Your task to perform on an android device: open app "Microsoft Authenticator" (install if not already installed) and enter user name: "Cornell@yahoo.com" and password: "bothersome" Image 0: 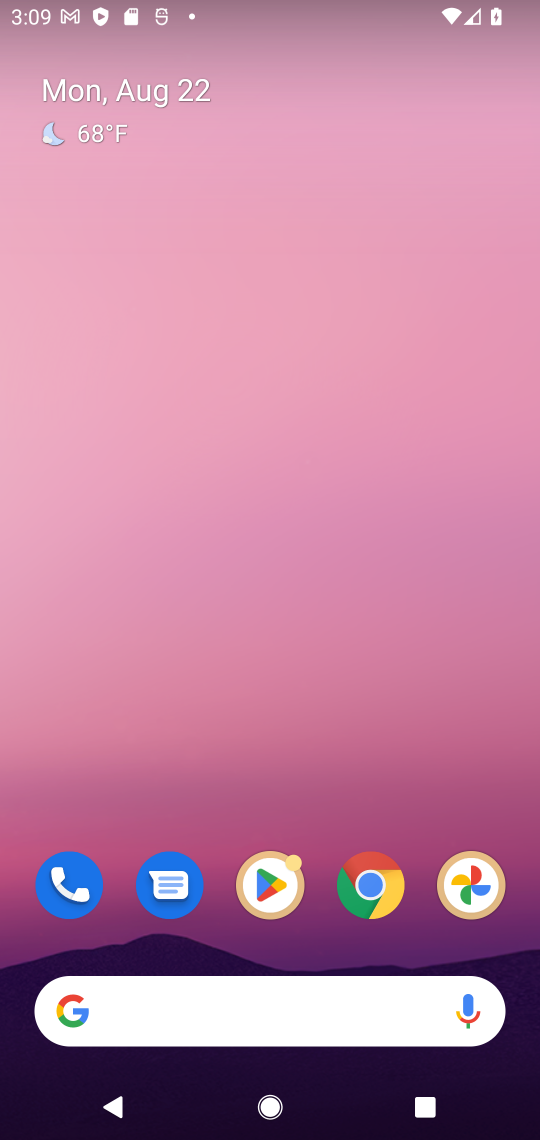
Step 0: press home button
Your task to perform on an android device: open app "Microsoft Authenticator" (install if not already installed) and enter user name: "Cornell@yahoo.com" and password: "bothersome" Image 1: 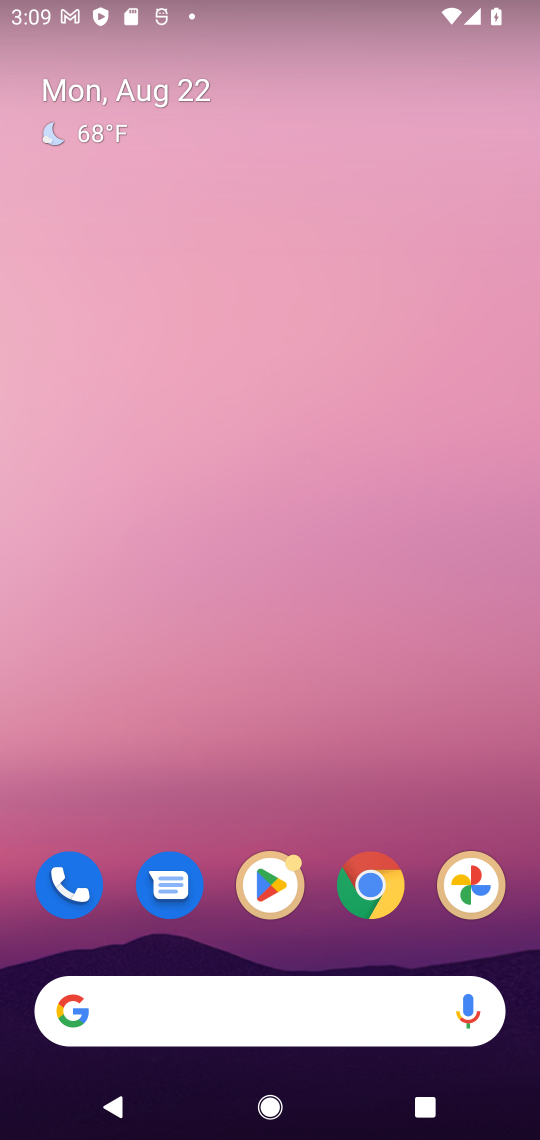
Step 1: click (257, 876)
Your task to perform on an android device: open app "Microsoft Authenticator" (install if not already installed) and enter user name: "Cornell@yahoo.com" and password: "bothersome" Image 2: 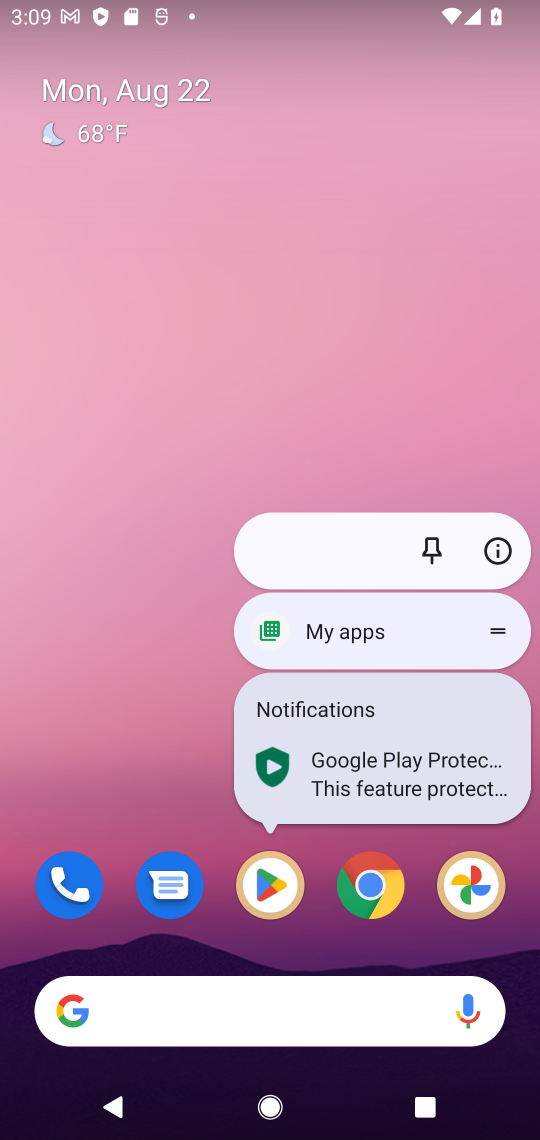
Step 2: click (264, 874)
Your task to perform on an android device: open app "Microsoft Authenticator" (install if not already installed) and enter user name: "Cornell@yahoo.com" and password: "bothersome" Image 3: 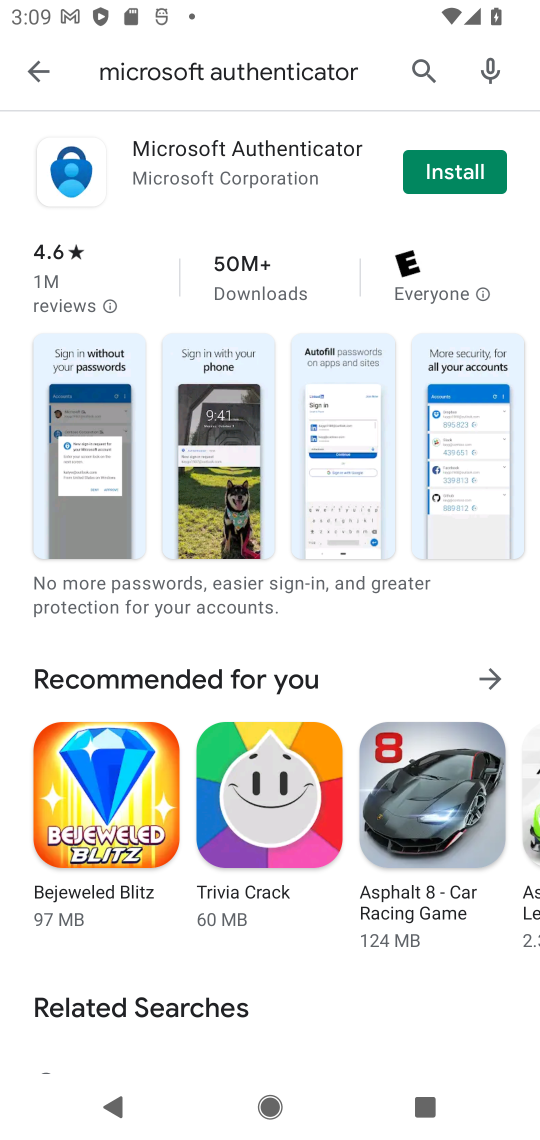
Step 3: click (419, 77)
Your task to perform on an android device: open app "Microsoft Authenticator" (install if not already installed) and enter user name: "Cornell@yahoo.com" and password: "bothersome" Image 4: 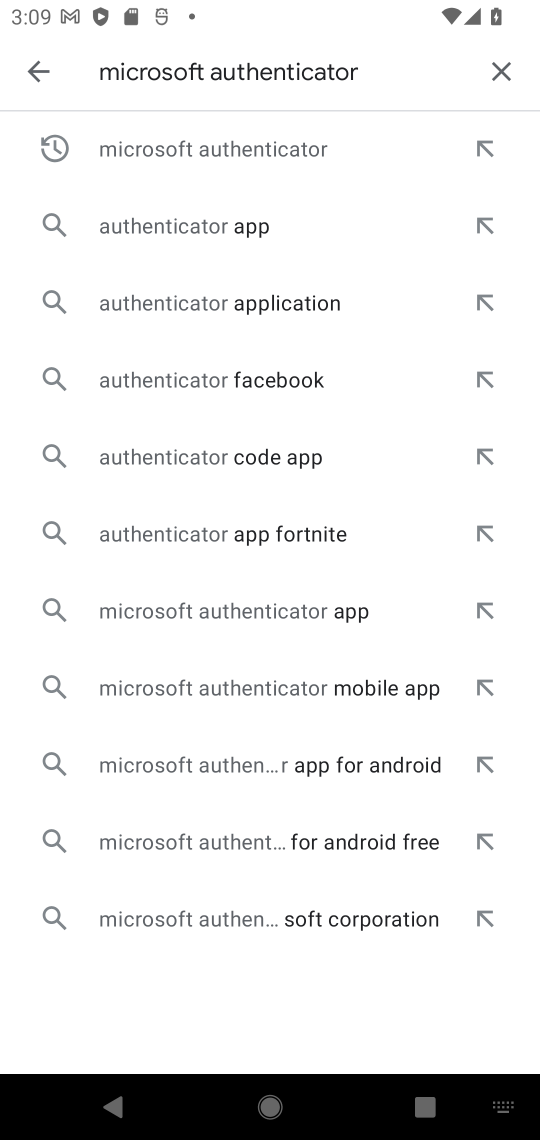
Step 4: click (499, 73)
Your task to perform on an android device: open app "Microsoft Authenticator" (install if not already installed) and enter user name: "Cornell@yahoo.com" and password: "bothersome" Image 5: 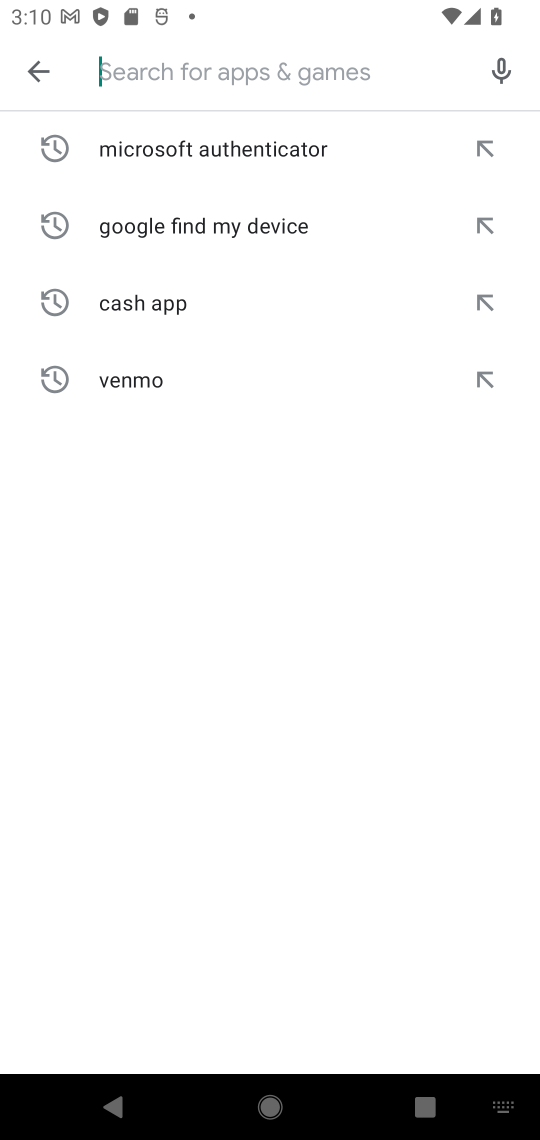
Step 5: type "Microsoft Authenticator"
Your task to perform on an android device: open app "Microsoft Authenticator" (install if not already installed) and enter user name: "Cornell@yahoo.com" and password: "bothersome" Image 6: 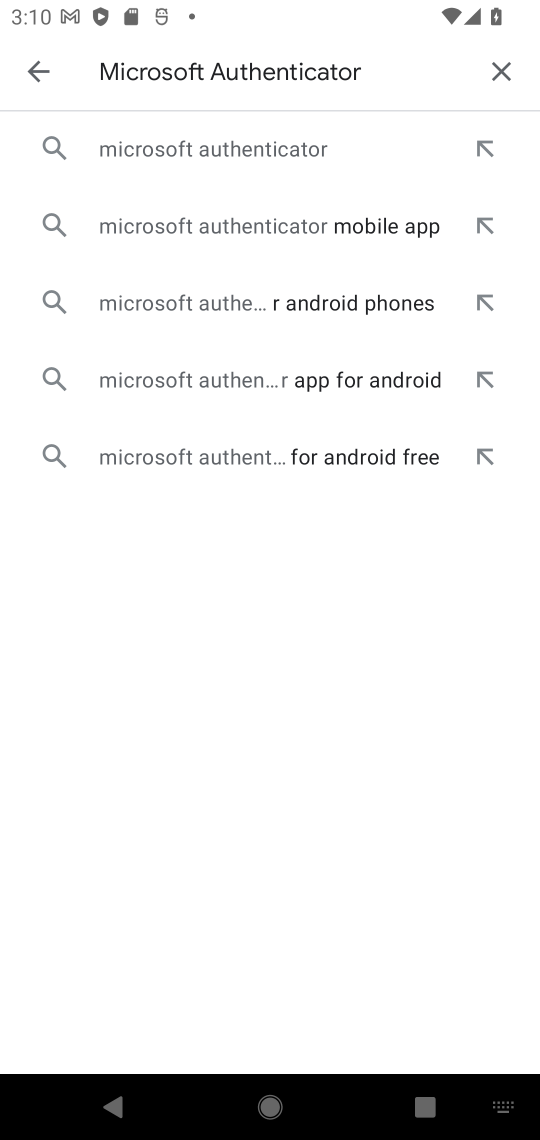
Step 6: click (291, 151)
Your task to perform on an android device: open app "Microsoft Authenticator" (install if not already installed) and enter user name: "Cornell@yahoo.com" and password: "bothersome" Image 7: 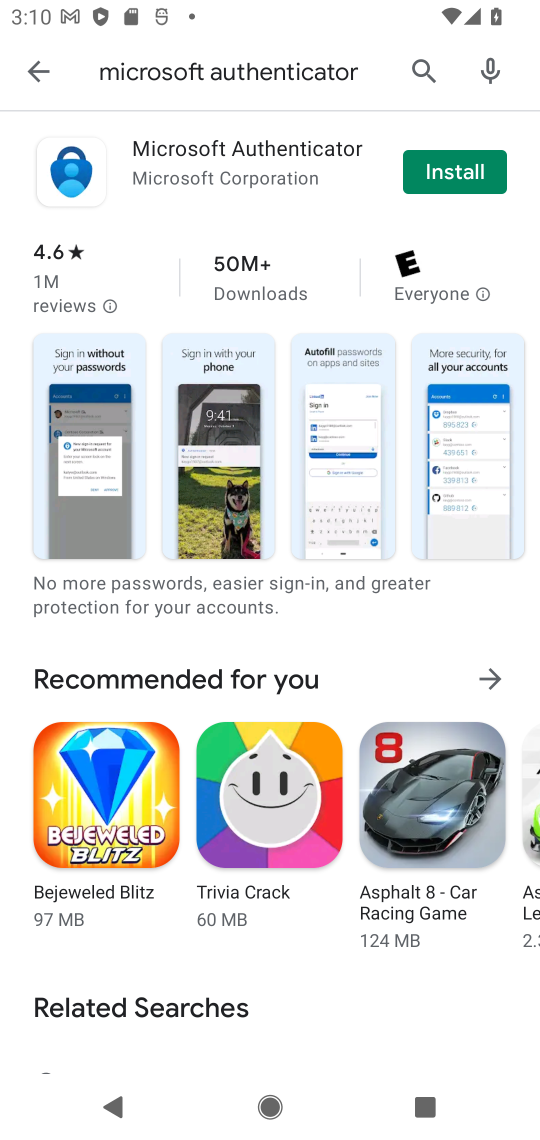
Step 7: click (471, 168)
Your task to perform on an android device: open app "Microsoft Authenticator" (install if not already installed) and enter user name: "Cornell@yahoo.com" and password: "bothersome" Image 8: 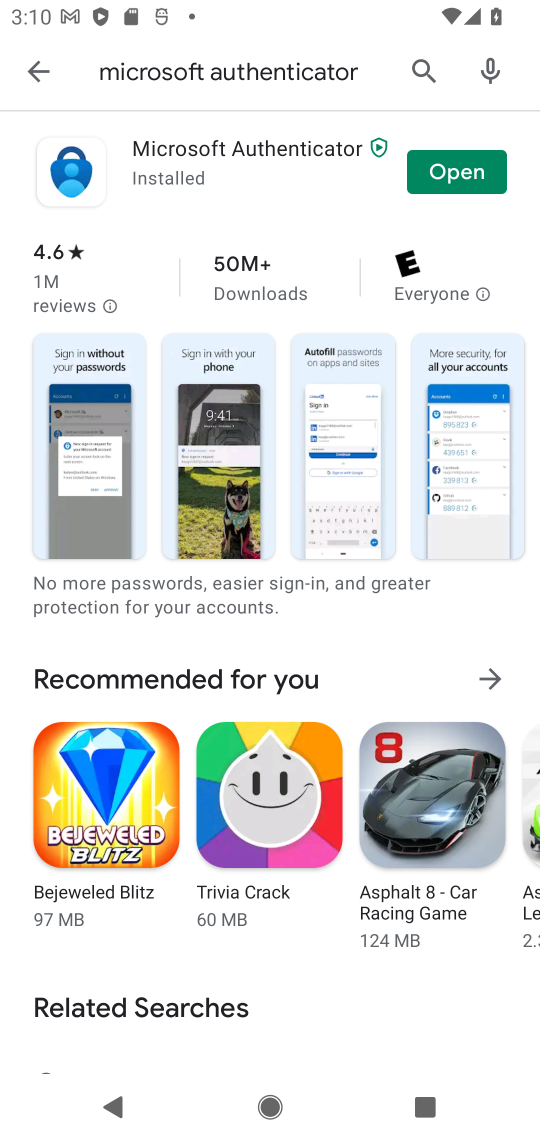
Step 8: click (453, 171)
Your task to perform on an android device: open app "Microsoft Authenticator" (install if not already installed) and enter user name: "Cornell@yahoo.com" and password: "bothersome" Image 9: 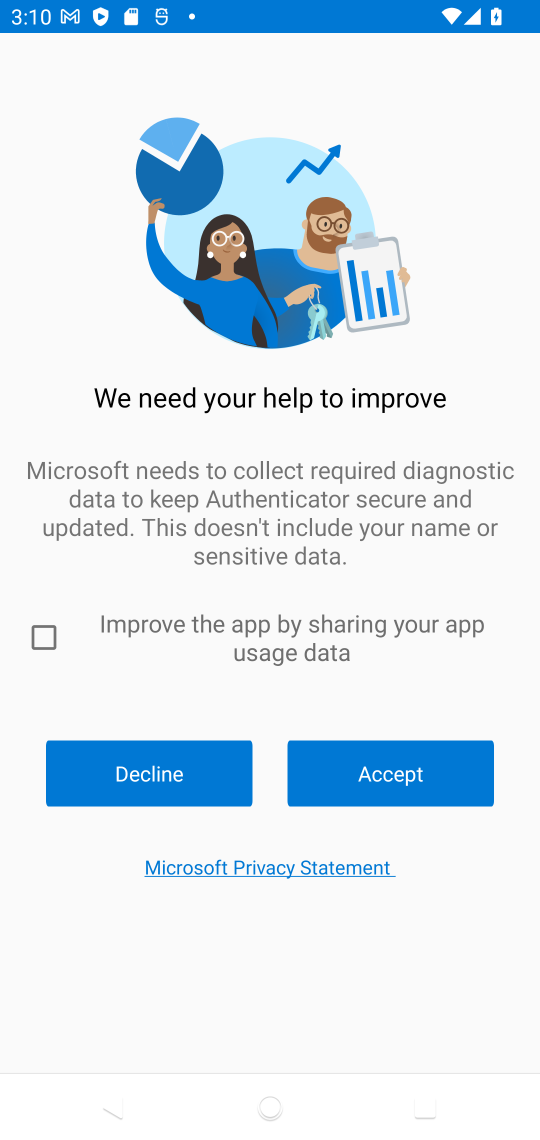
Step 9: click (43, 638)
Your task to perform on an android device: open app "Microsoft Authenticator" (install if not already installed) and enter user name: "Cornell@yahoo.com" and password: "bothersome" Image 10: 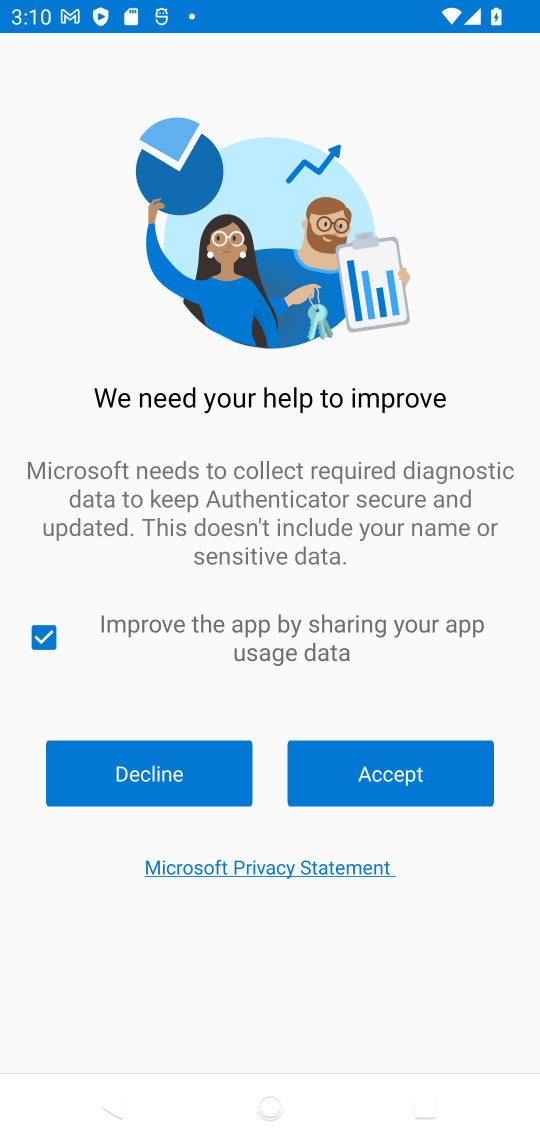
Step 10: click (393, 773)
Your task to perform on an android device: open app "Microsoft Authenticator" (install if not already installed) and enter user name: "Cornell@yahoo.com" and password: "bothersome" Image 11: 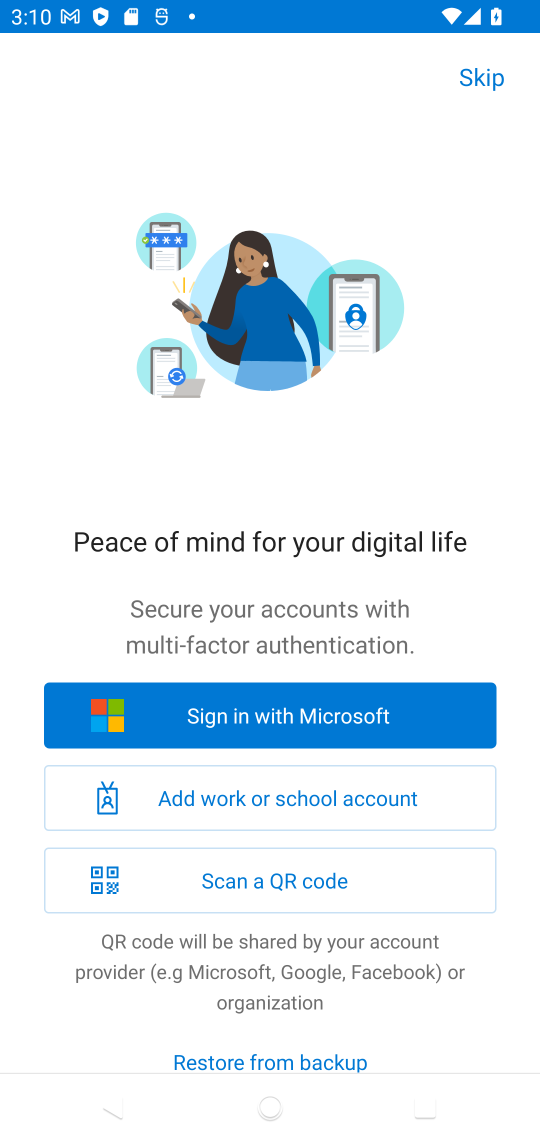
Step 11: click (258, 716)
Your task to perform on an android device: open app "Microsoft Authenticator" (install if not already installed) and enter user name: "Cornell@yahoo.com" and password: "bothersome" Image 12: 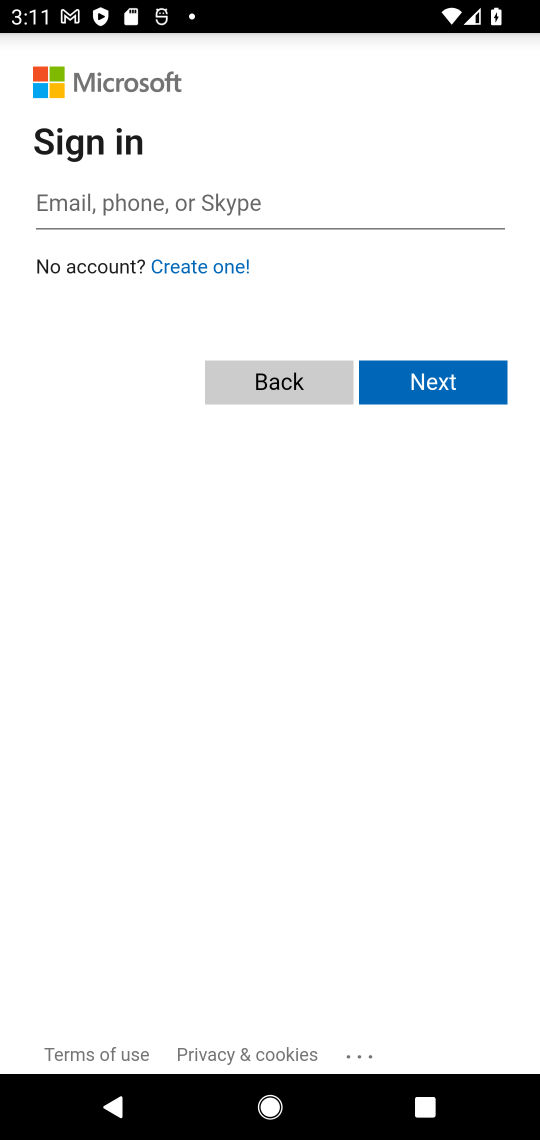
Step 12: click (117, 186)
Your task to perform on an android device: open app "Microsoft Authenticator" (install if not already installed) and enter user name: "Cornell@yahoo.com" and password: "bothersome" Image 13: 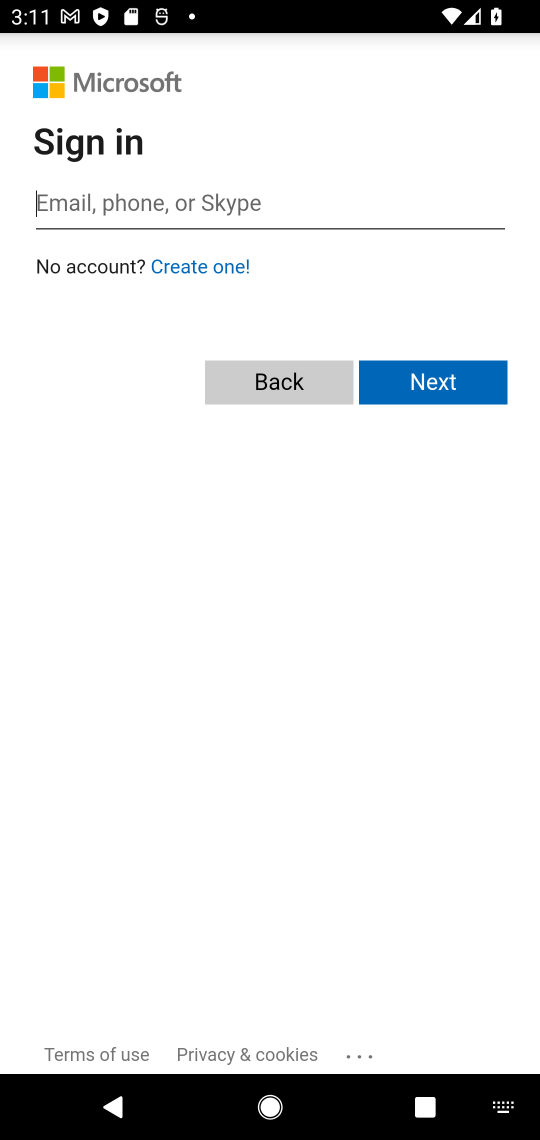
Step 13: type "Cornell@yahoo.com"
Your task to perform on an android device: open app "Microsoft Authenticator" (install if not already installed) and enter user name: "Cornell@yahoo.com" and password: "bothersome" Image 14: 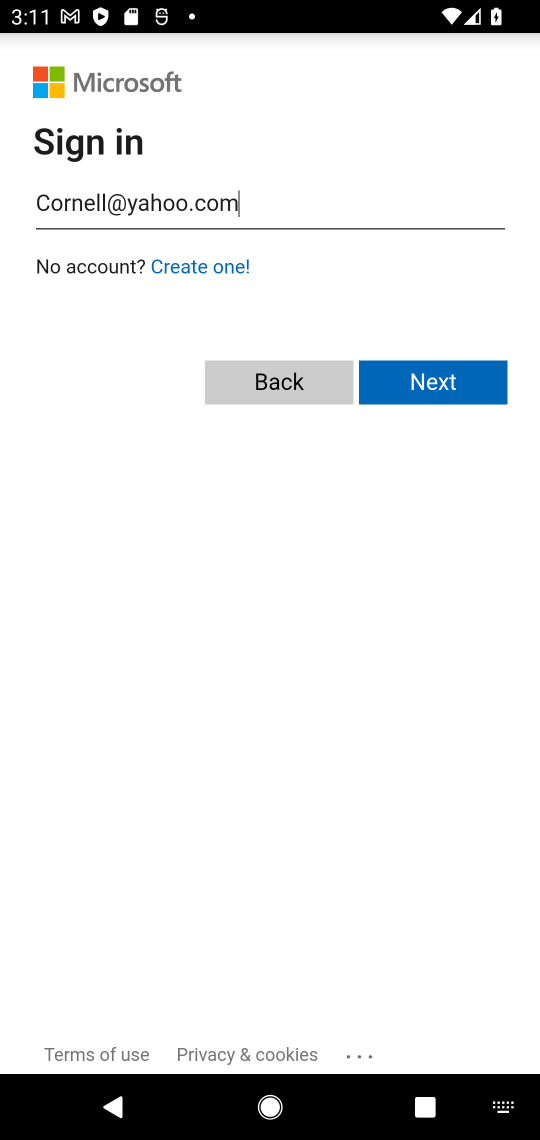
Step 14: click (408, 374)
Your task to perform on an android device: open app "Microsoft Authenticator" (install if not already installed) and enter user name: "Cornell@yahoo.com" and password: "bothersome" Image 15: 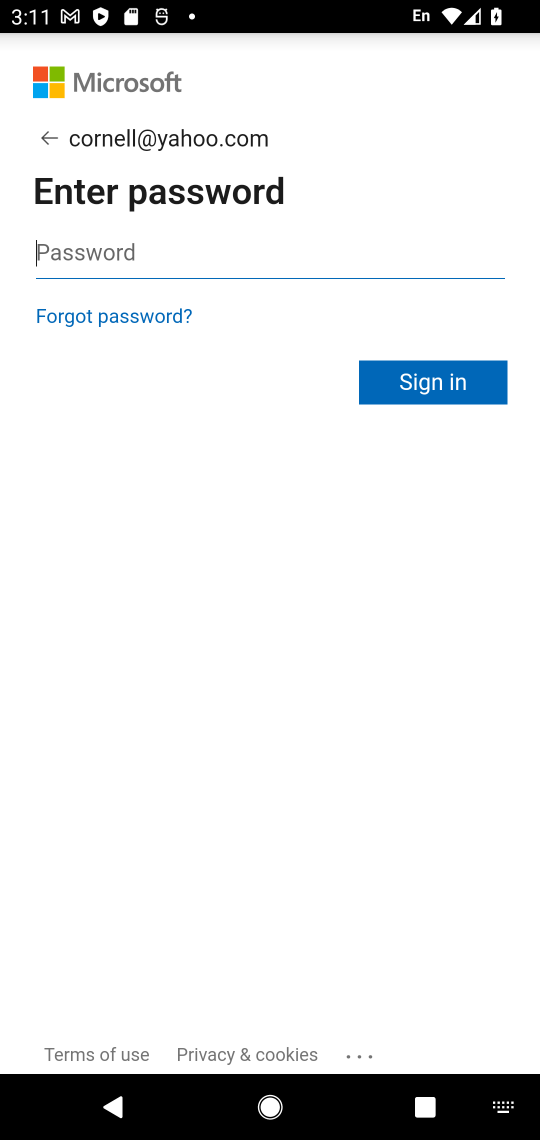
Step 15: click (104, 250)
Your task to perform on an android device: open app "Microsoft Authenticator" (install if not already installed) and enter user name: "Cornell@yahoo.com" and password: "bothersome" Image 16: 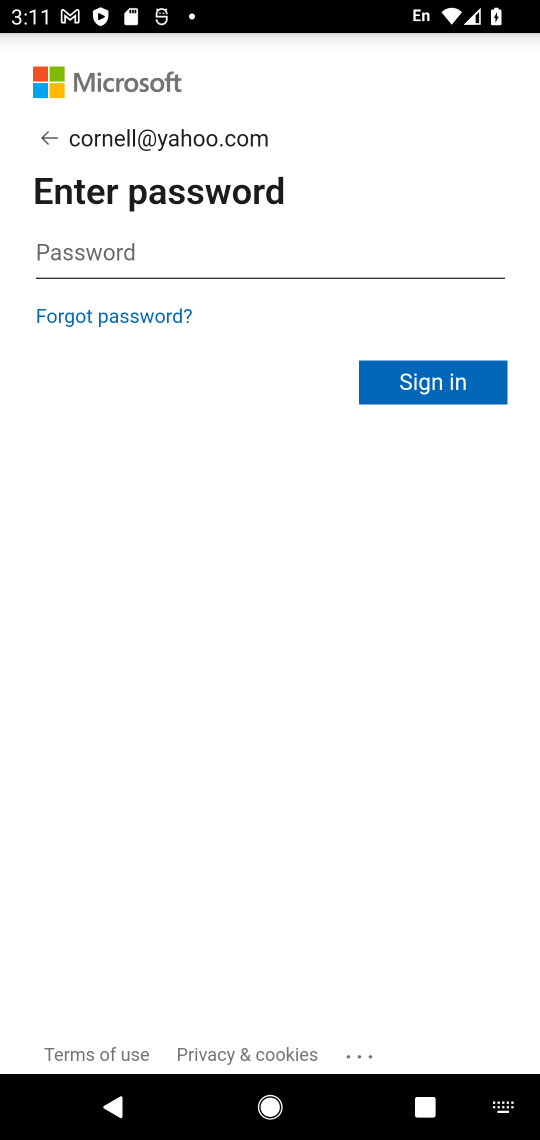
Step 16: type "bothersome"
Your task to perform on an android device: open app "Microsoft Authenticator" (install if not already installed) and enter user name: "Cornell@yahoo.com" and password: "bothersome" Image 17: 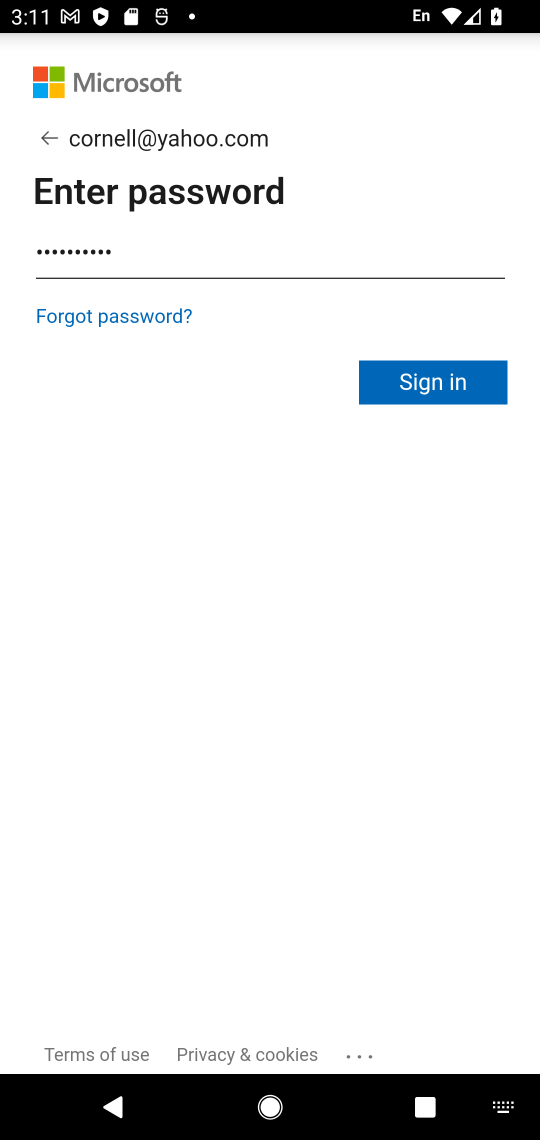
Step 17: click (439, 383)
Your task to perform on an android device: open app "Microsoft Authenticator" (install if not already installed) and enter user name: "Cornell@yahoo.com" and password: "bothersome" Image 18: 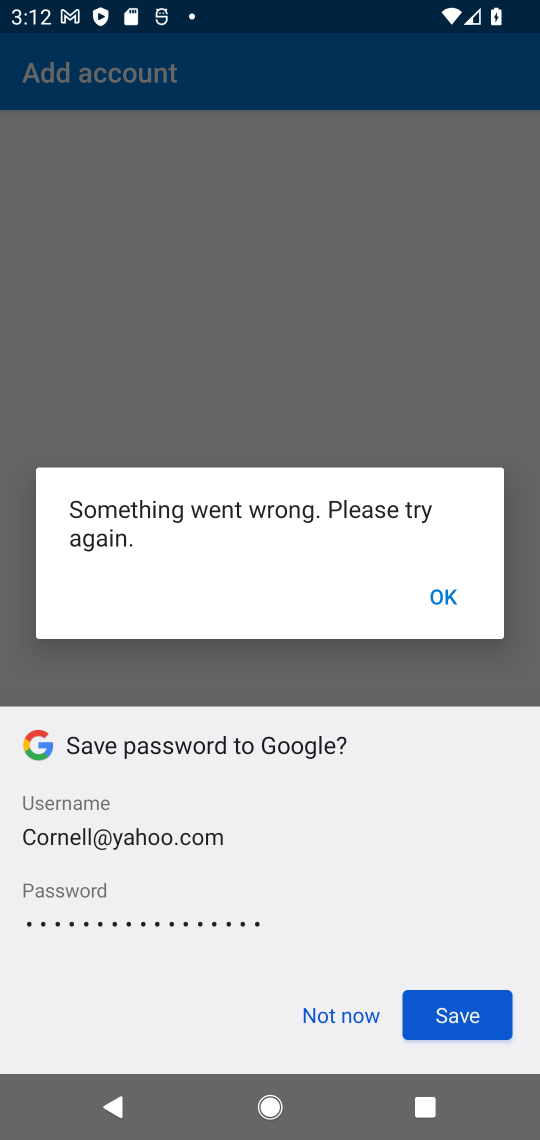
Step 18: click (442, 584)
Your task to perform on an android device: open app "Microsoft Authenticator" (install if not already installed) and enter user name: "Cornell@yahoo.com" and password: "bothersome" Image 19: 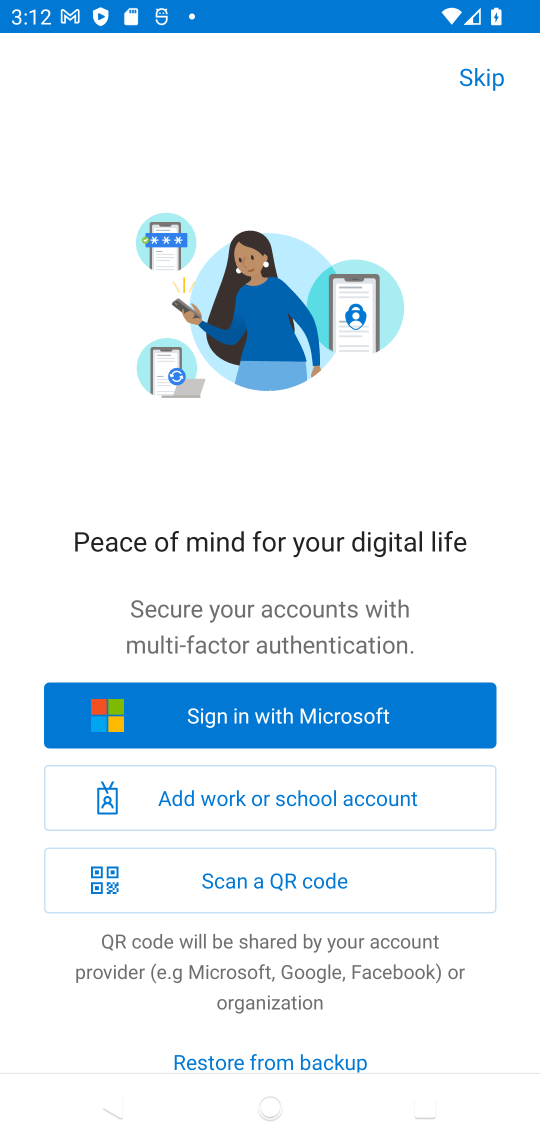
Step 19: task complete